Your task to perform on an android device: check data usage Image 0: 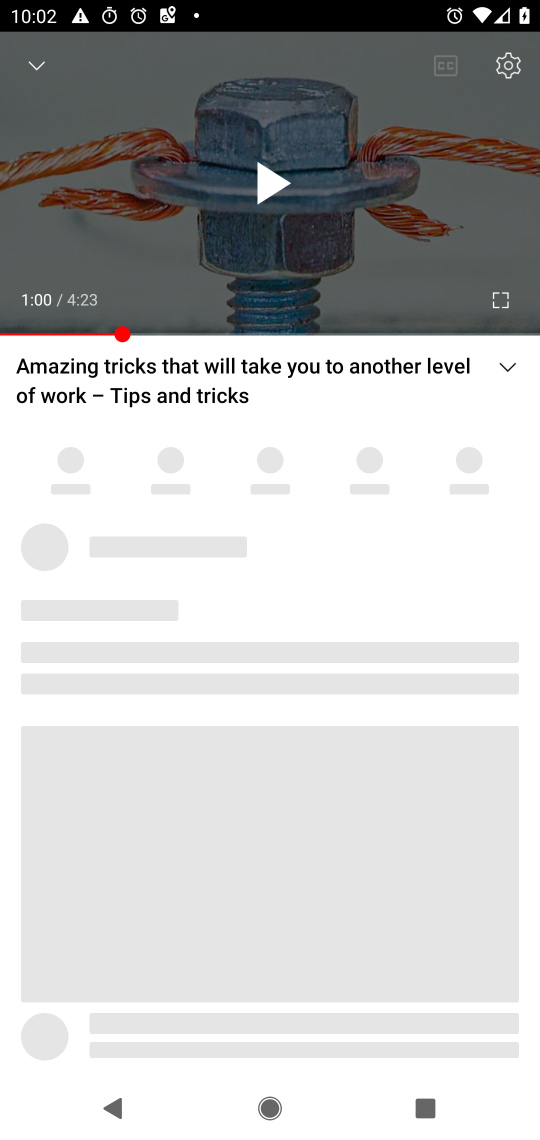
Step 0: press home button
Your task to perform on an android device: check data usage Image 1: 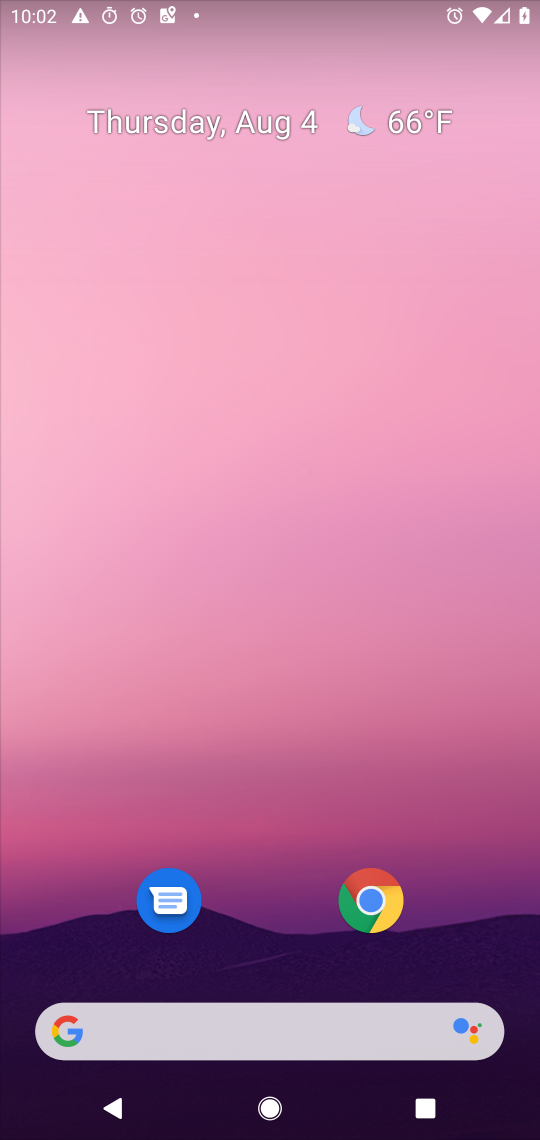
Step 1: drag from (208, 1037) to (226, 342)
Your task to perform on an android device: check data usage Image 2: 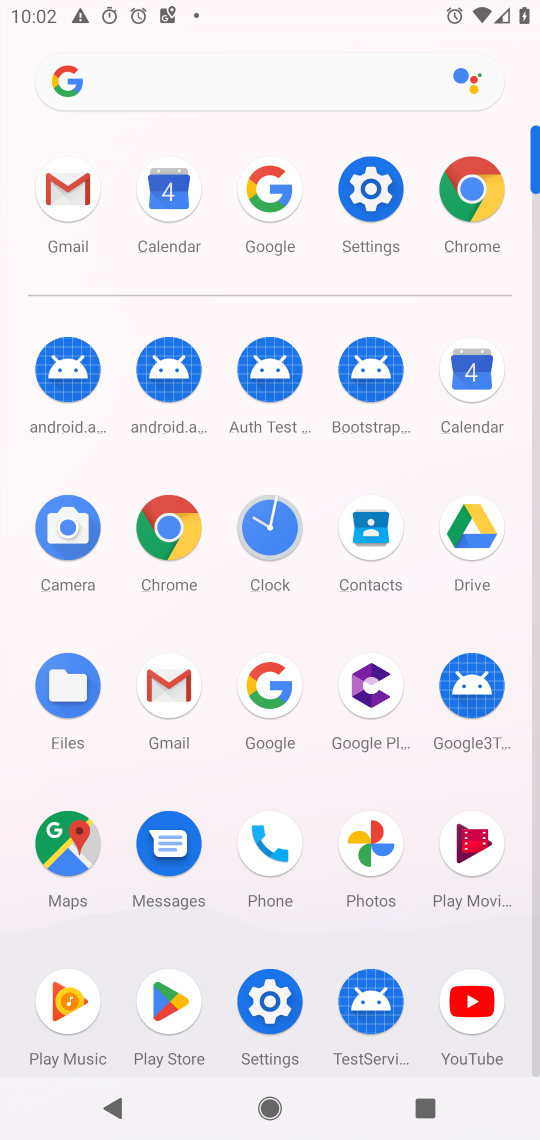
Step 2: click (370, 191)
Your task to perform on an android device: check data usage Image 3: 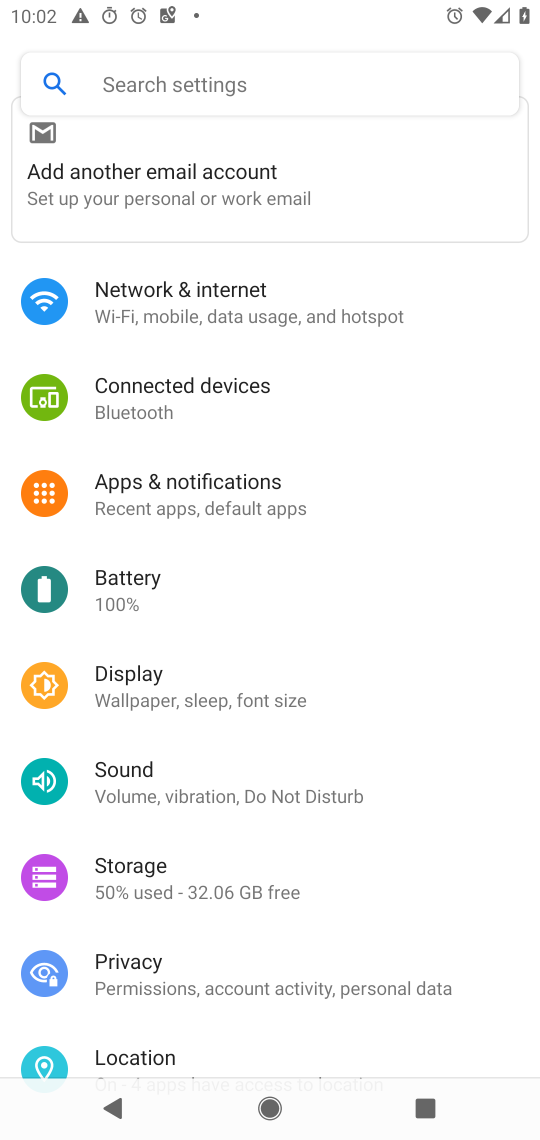
Step 3: click (216, 311)
Your task to perform on an android device: check data usage Image 4: 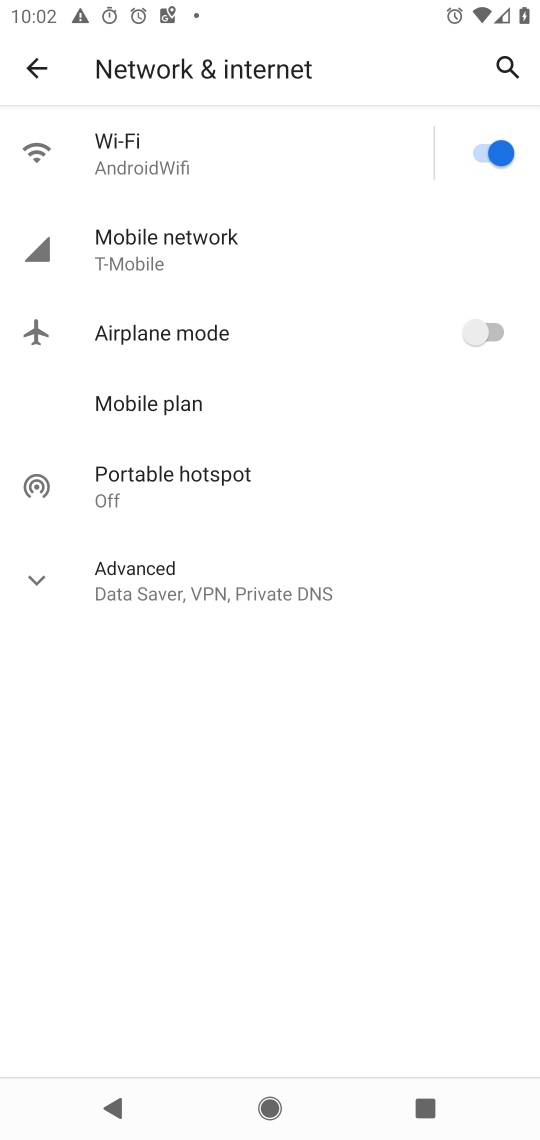
Step 4: click (156, 243)
Your task to perform on an android device: check data usage Image 5: 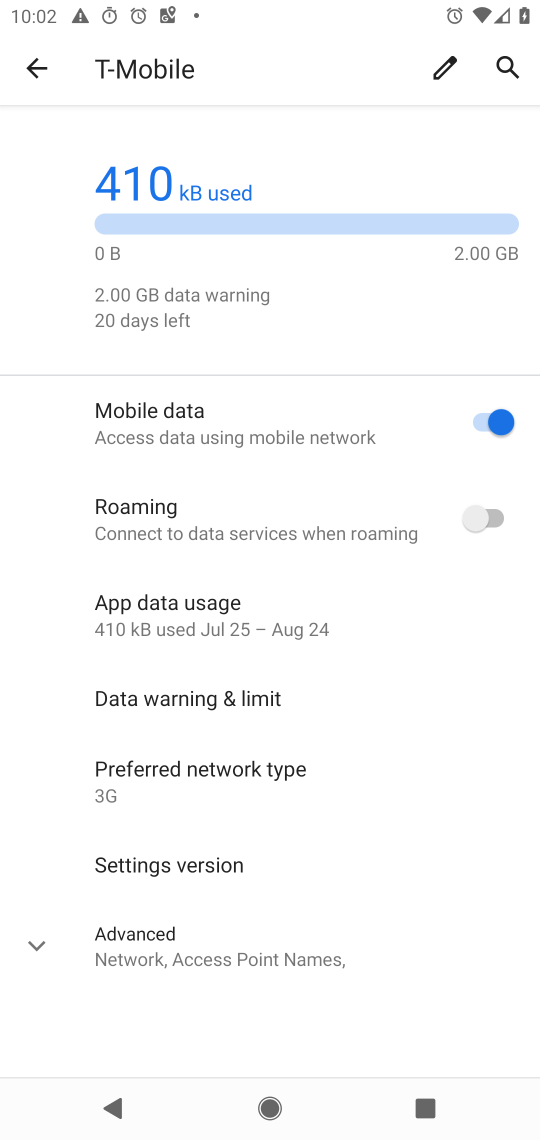
Step 5: task complete